Your task to perform on an android device: set default search engine in the chrome app Image 0: 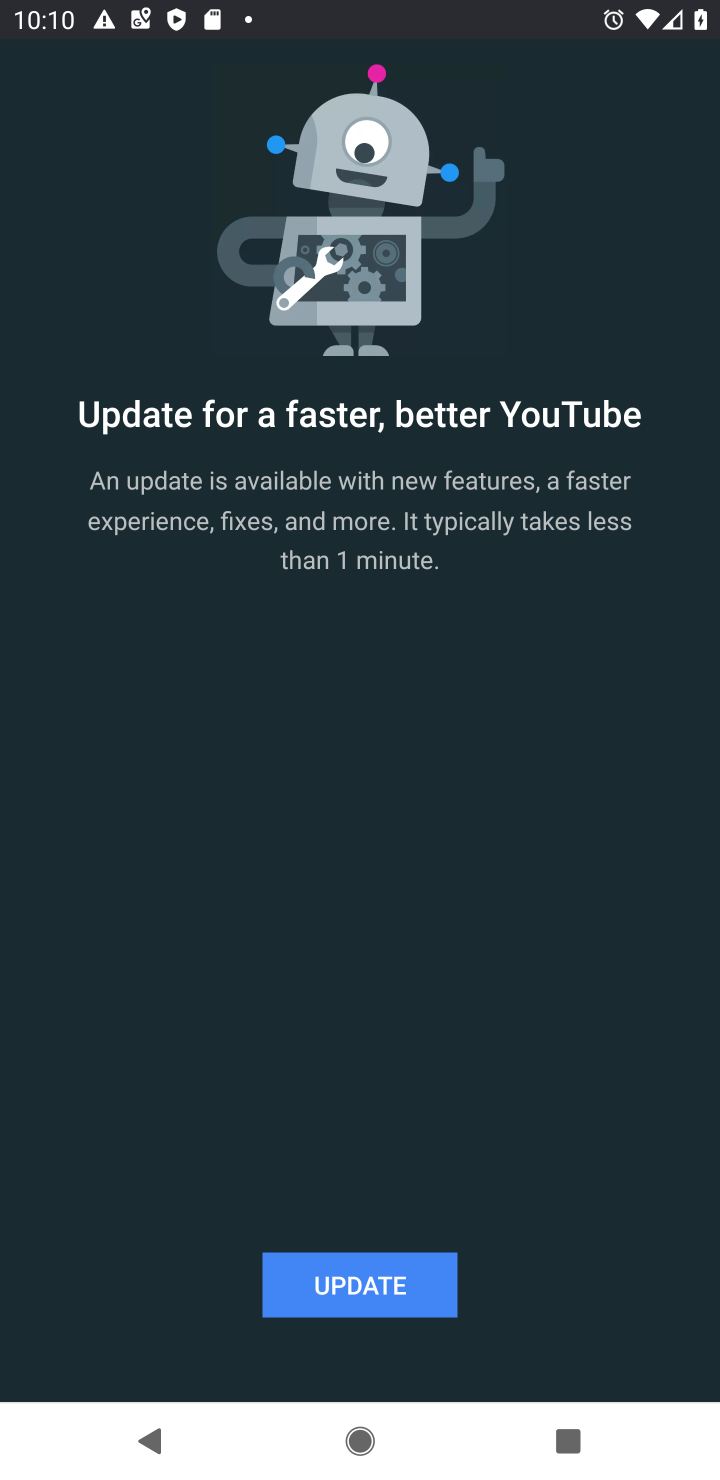
Step 0: press home button
Your task to perform on an android device: set default search engine in the chrome app Image 1: 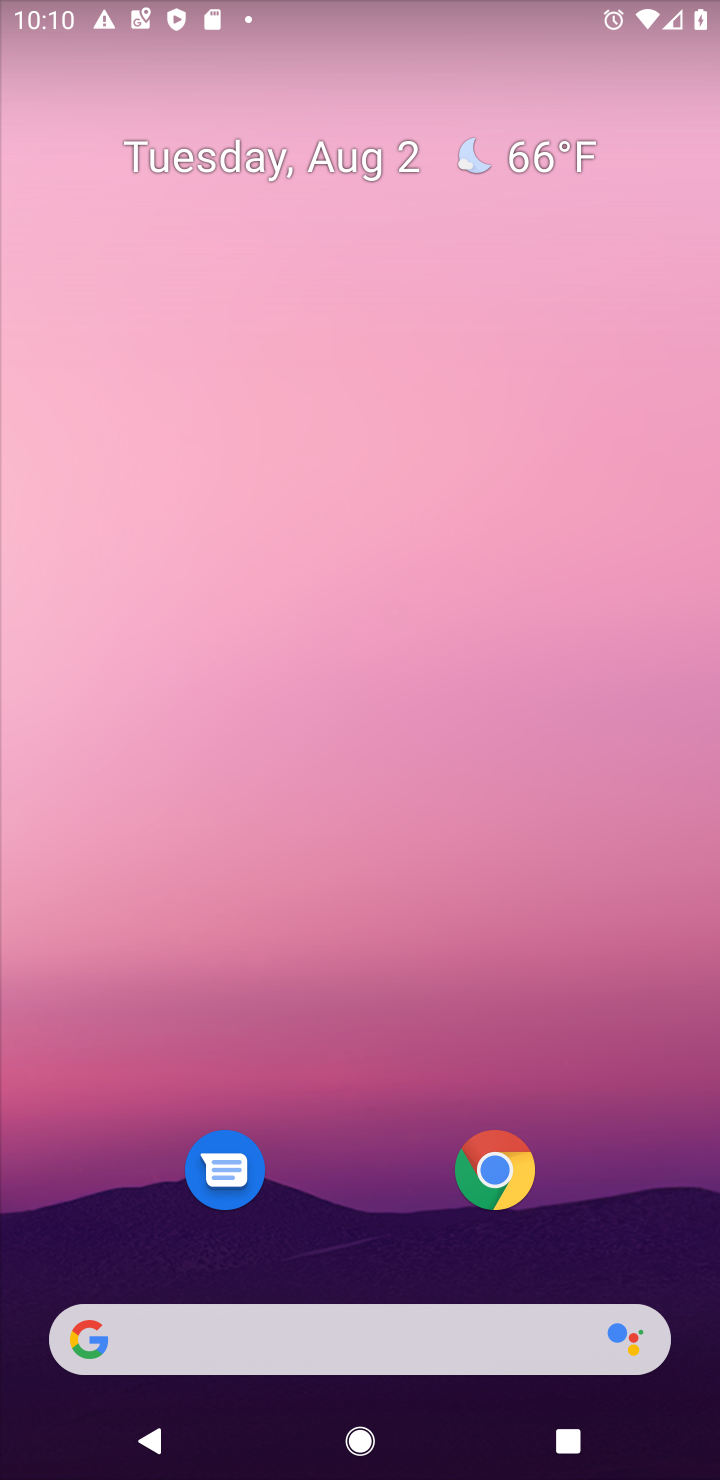
Step 1: click (491, 1170)
Your task to perform on an android device: set default search engine in the chrome app Image 2: 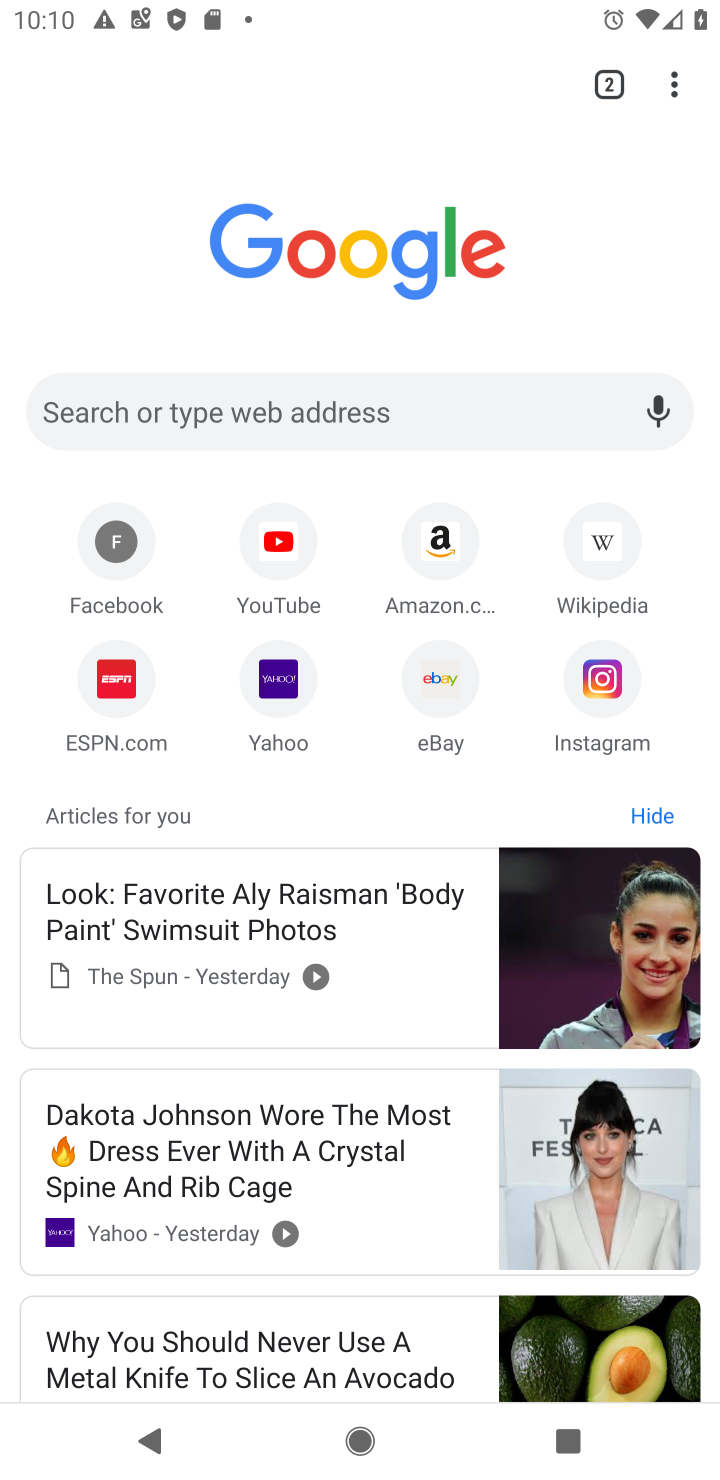
Step 2: click (667, 100)
Your task to perform on an android device: set default search engine in the chrome app Image 3: 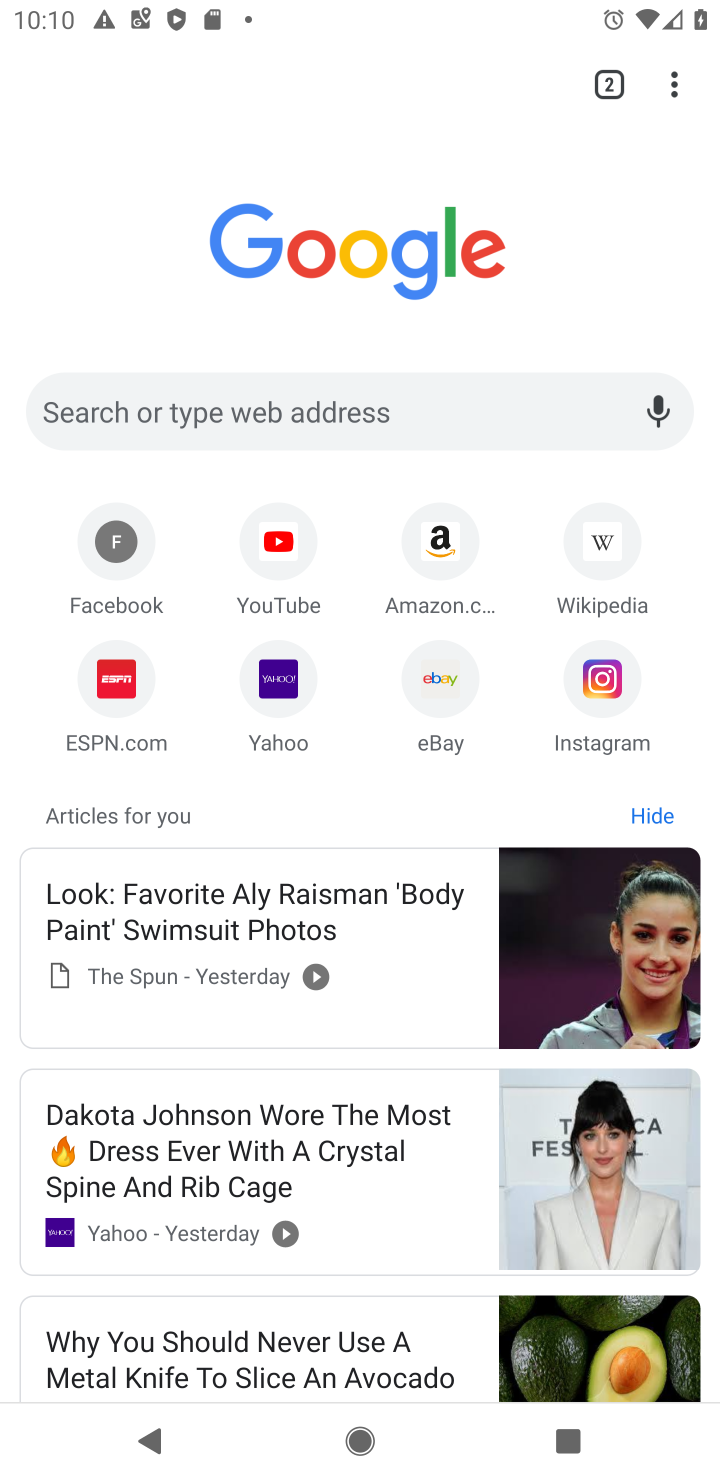
Step 3: click (675, 83)
Your task to perform on an android device: set default search engine in the chrome app Image 4: 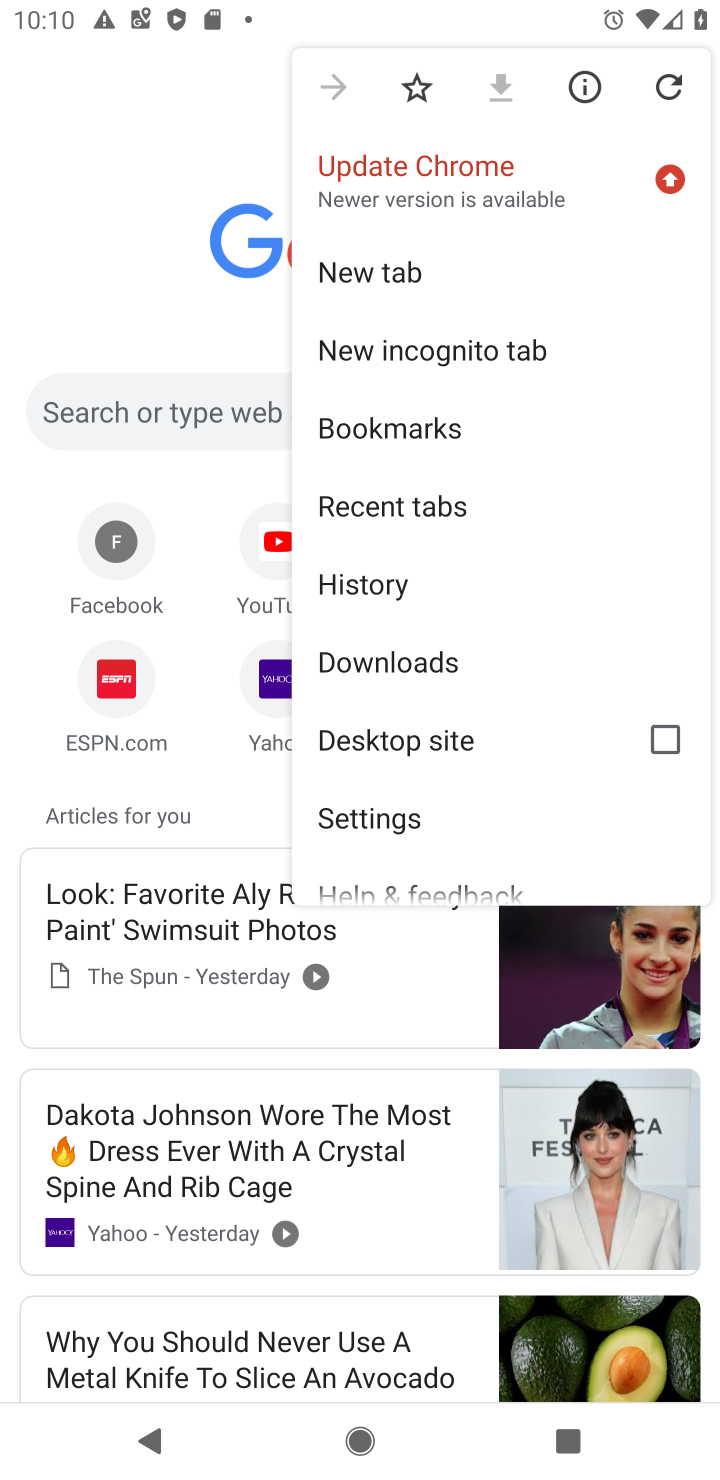
Step 4: click (359, 830)
Your task to perform on an android device: set default search engine in the chrome app Image 5: 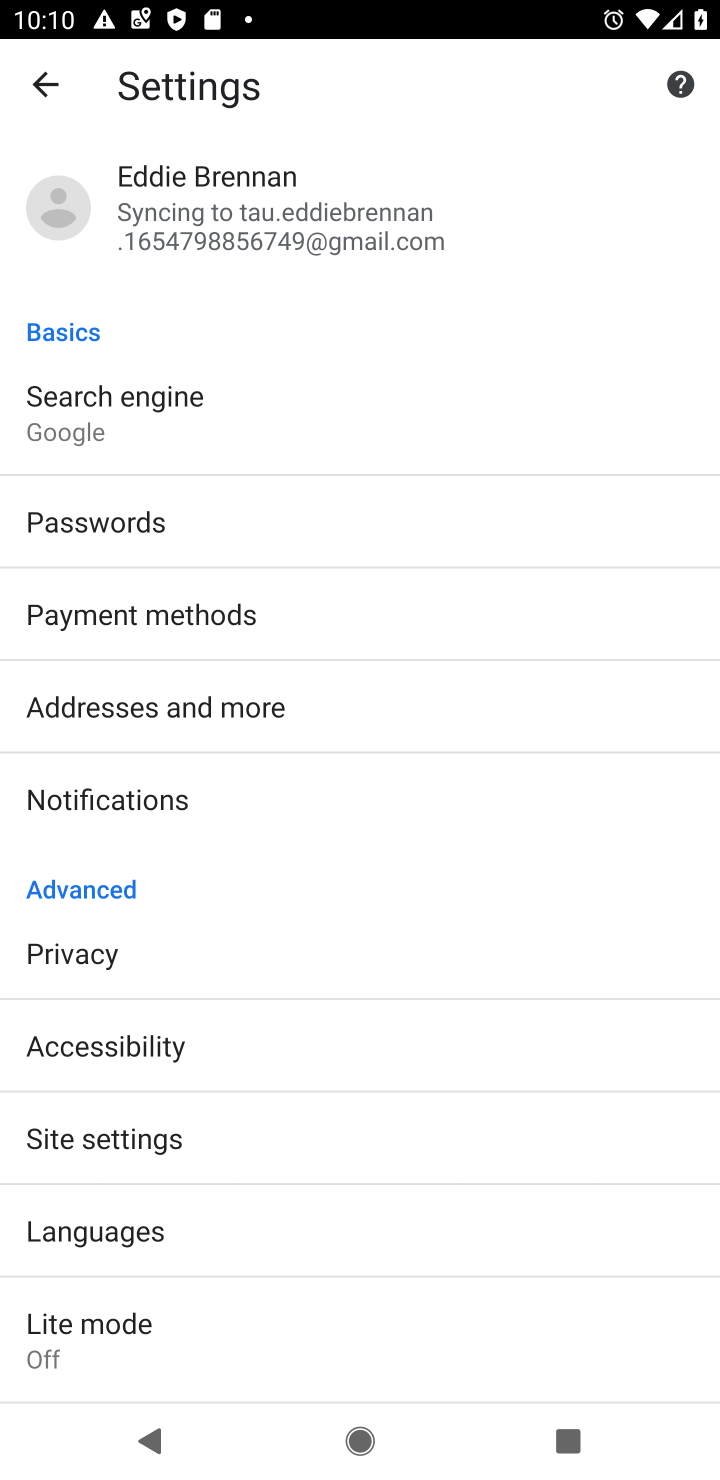
Step 5: click (115, 433)
Your task to perform on an android device: set default search engine in the chrome app Image 6: 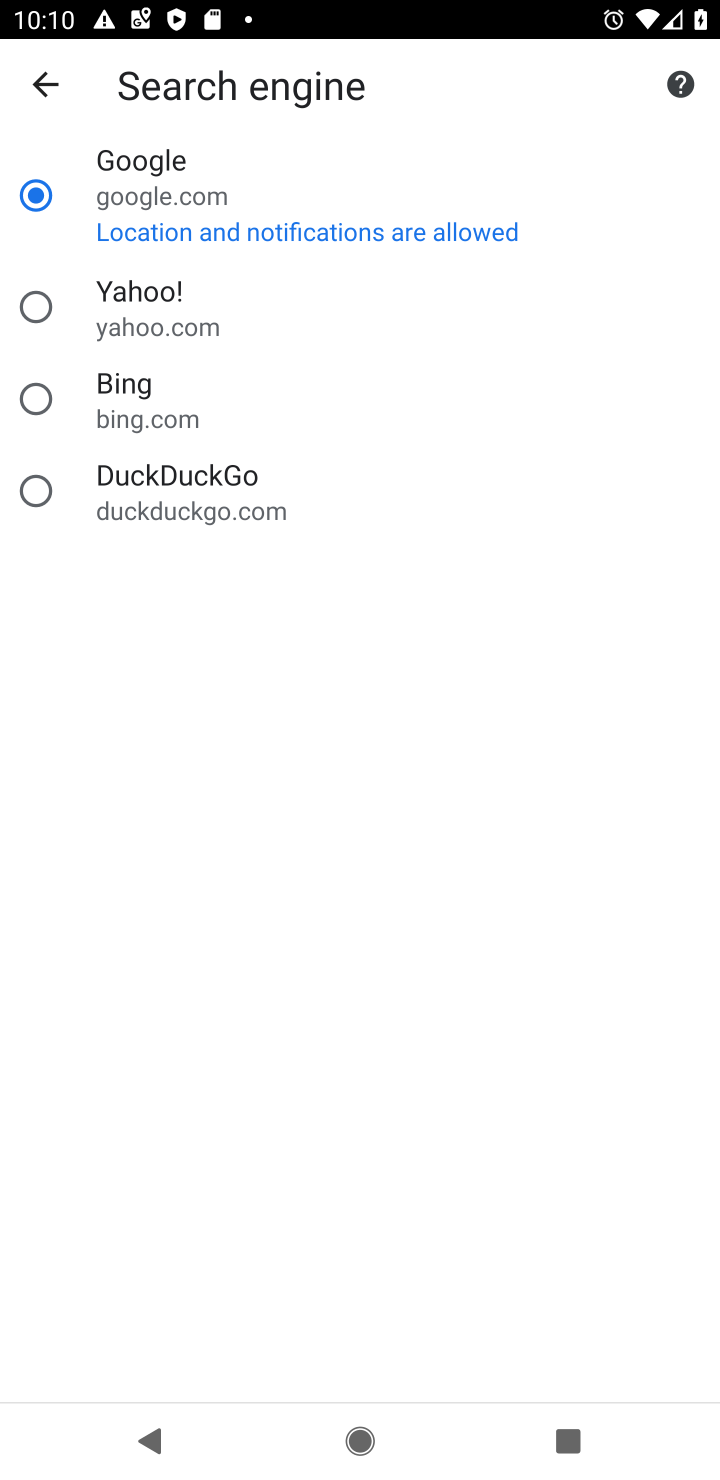
Step 6: click (49, 304)
Your task to perform on an android device: set default search engine in the chrome app Image 7: 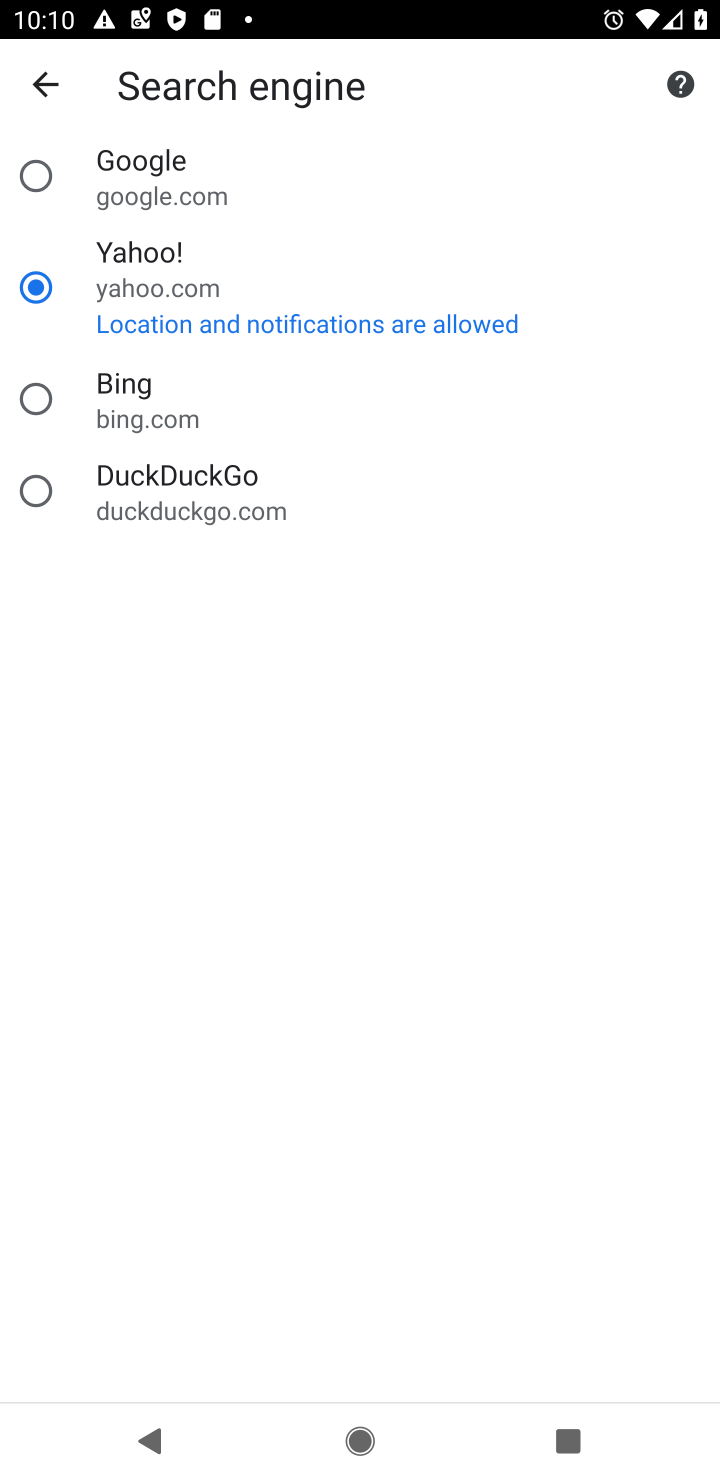
Step 7: task complete